Your task to perform on an android device: open chrome privacy settings Image 0: 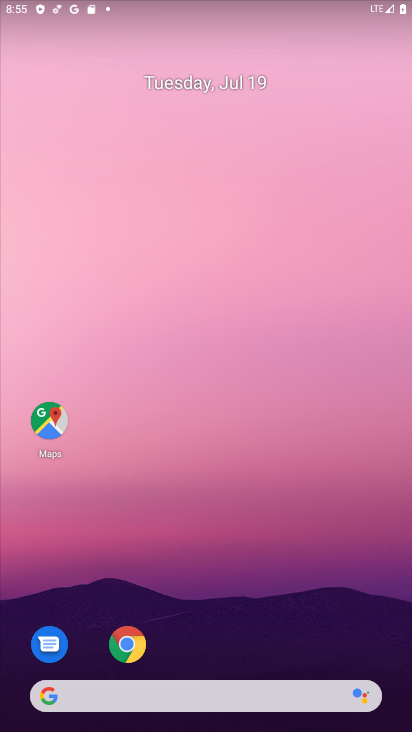
Step 0: click (140, 645)
Your task to perform on an android device: open chrome privacy settings Image 1: 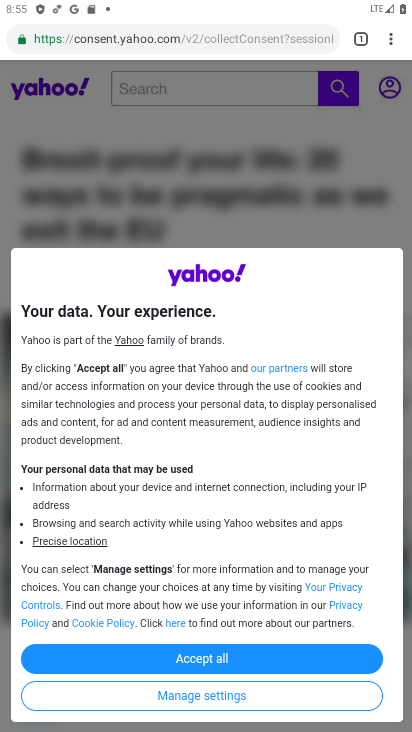
Step 1: click (395, 34)
Your task to perform on an android device: open chrome privacy settings Image 2: 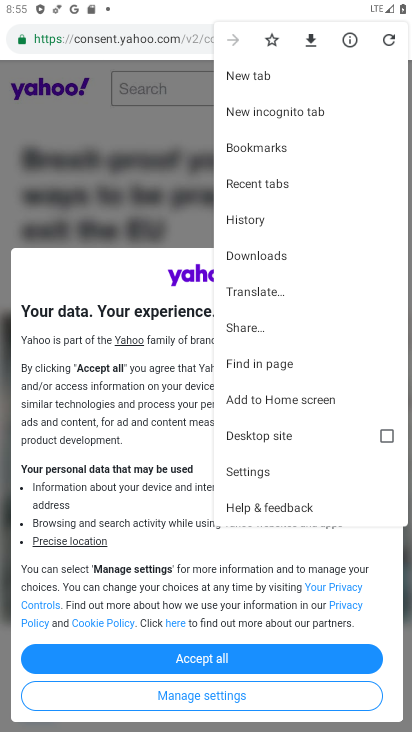
Step 2: click (271, 466)
Your task to perform on an android device: open chrome privacy settings Image 3: 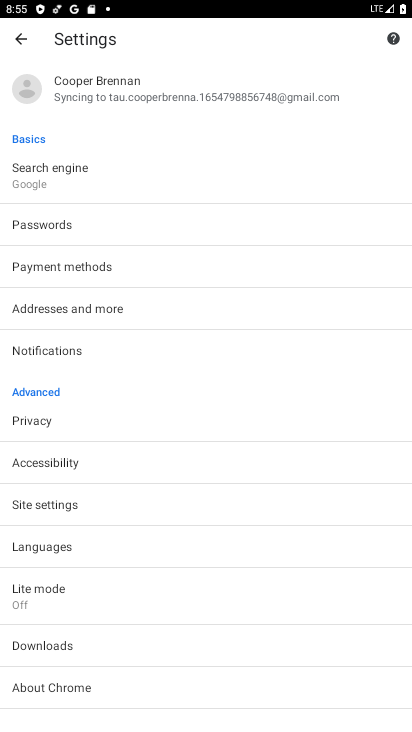
Step 3: click (95, 425)
Your task to perform on an android device: open chrome privacy settings Image 4: 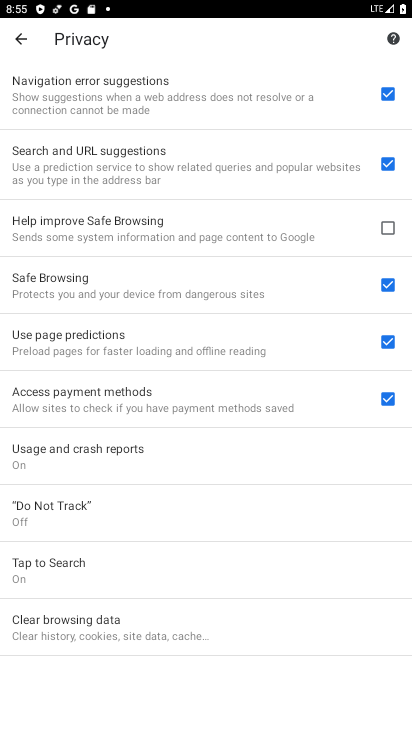
Step 4: task complete